Your task to perform on an android device: turn on translation in the chrome app Image 0: 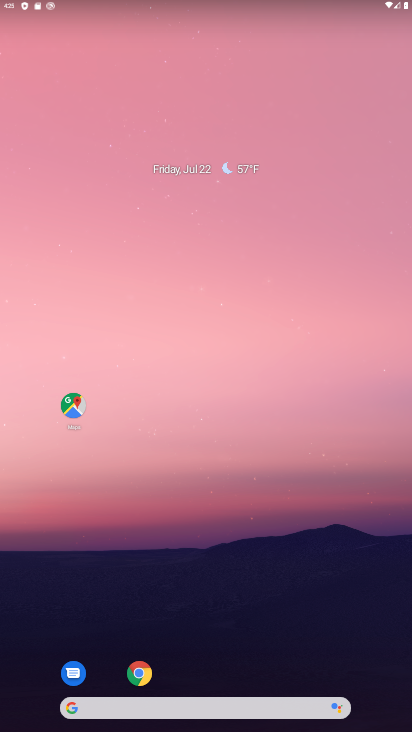
Step 0: drag from (312, 199) to (368, 496)
Your task to perform on an android device: turn on translation in the chrome app Image 1: 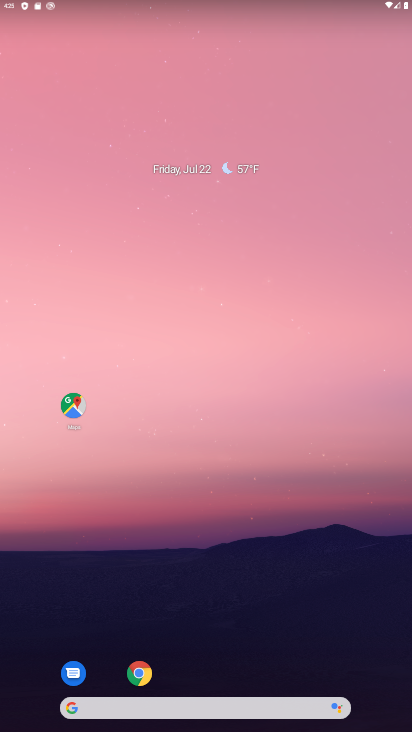
Step 1: click (142, 677)
Your task to perform on an android device: turn on translation in the chrome app Image 2: 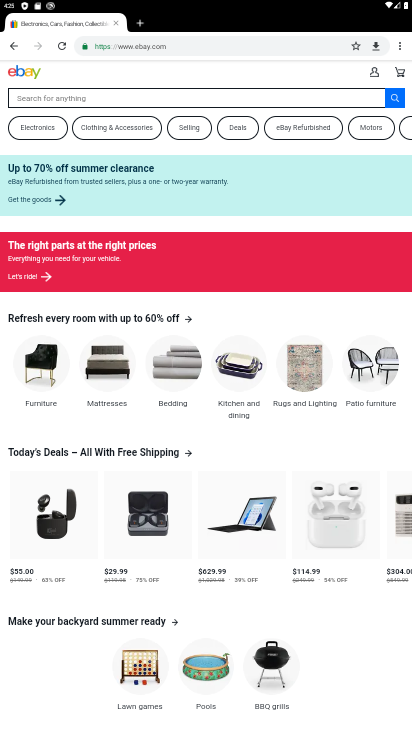
Step 2: click (402, 40)
Your task to perform on an android device: turn on translation in the chrome app Image 3: 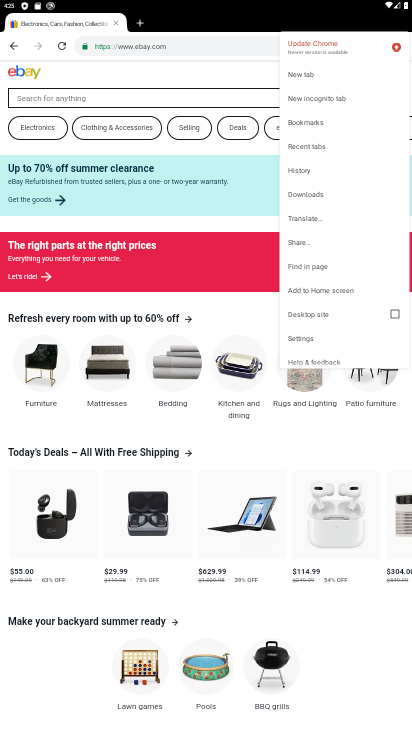
Step 3: click (313, 337)
Your task to perform on an android device: turn on translation in the chrome app Image 4: 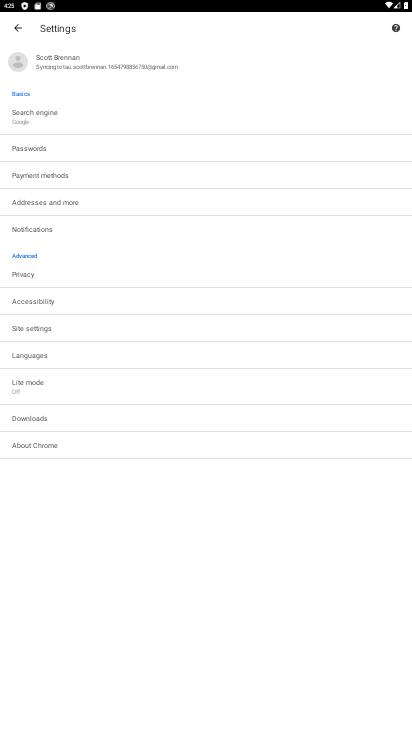
Step 4: click (23, 359)
Your task to perform on an android device: turn on translation in the chrome app Image 5: 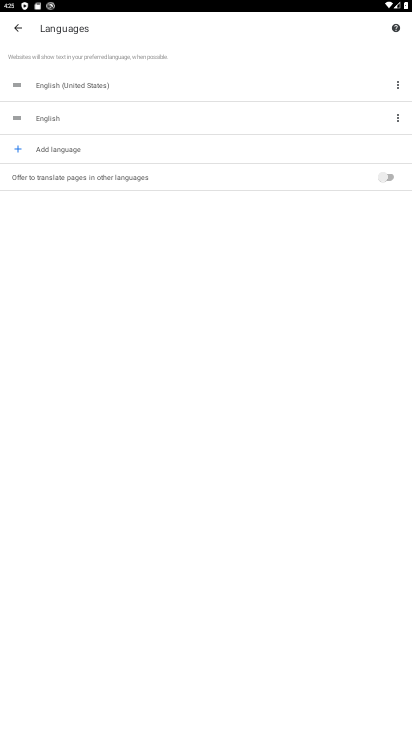
Step 5: click (386, 170)
Your task to perform on an android device: turn on translation in the chrome app Image 6: 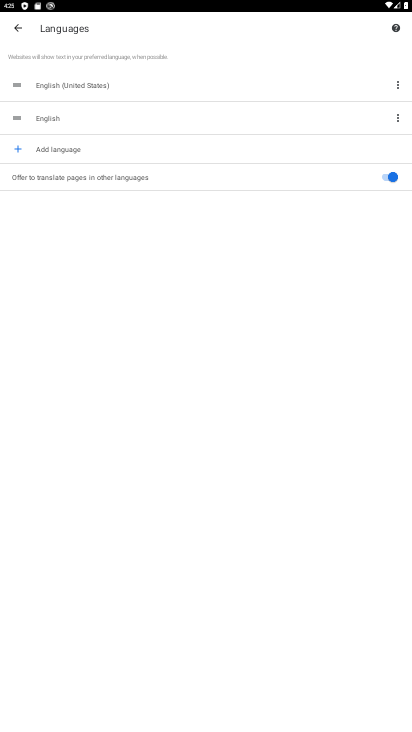
Step 6: task complete